Your task to perform on an android device: toggle priority inbox in the gmail app Image 0: 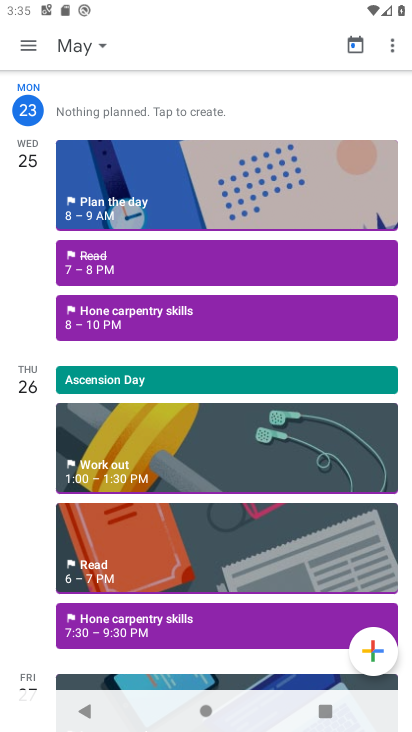
Step 0: drag from (216, 656) to (271, 219)
Your task to perform on an android device: toggle priority inbox in the gmail app Image 1: 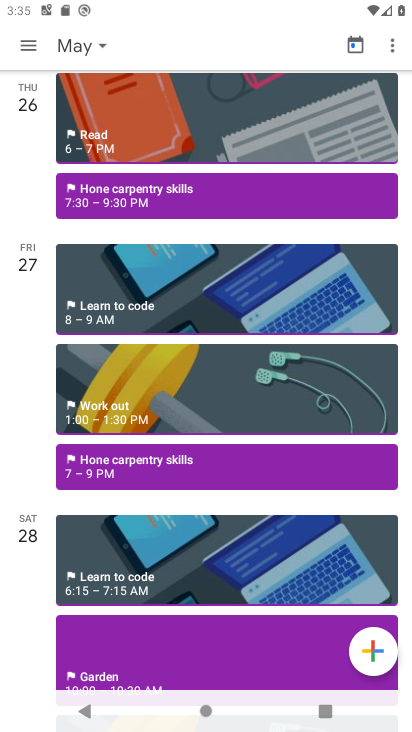
Step 1: drag from (224, 602) to (223, 151)
Your task to perform on an android device: toggle priority inbox in the gmail app Image 2: 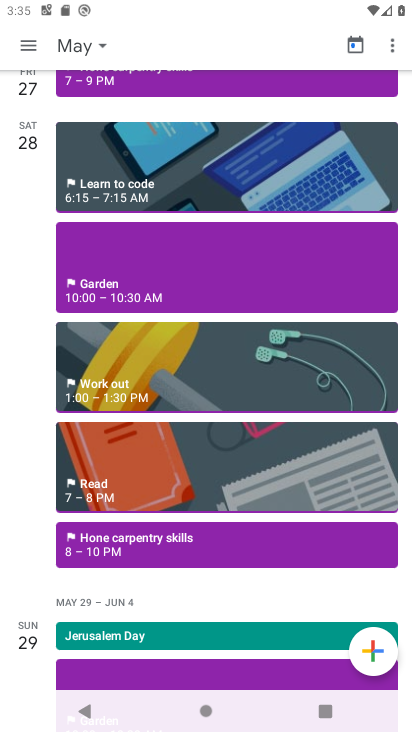
Step 2: press home button
Your task to perform on an android device: toggle priority inbox in the gmail app Image 3: 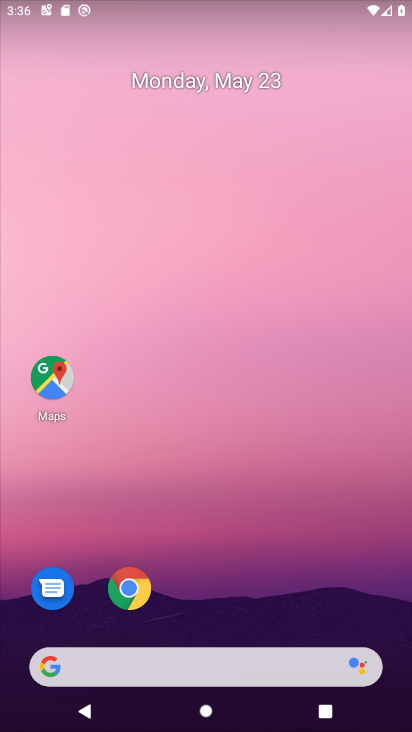
Step 3: drag from (193, 641) to (267, 203)
Your task to perform on an android device: toggle priority inbox in the gmail app Image 4: 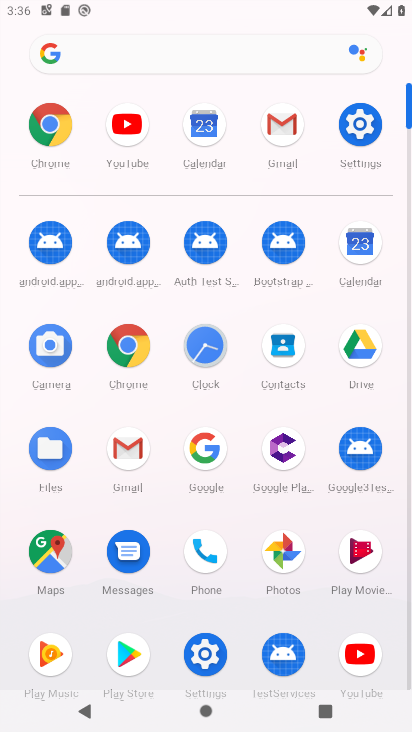
Step 4: click (120, 438)
Your task to perform on an android device: toggle priority inbox in the gmail app Image 5: 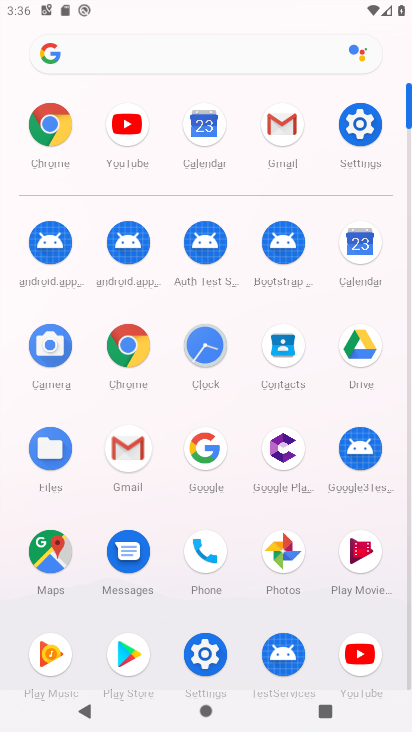
Step 5: click (120, 438)
Your task to perform on an android device: toggle priority inbox in the gmail app Image 6: 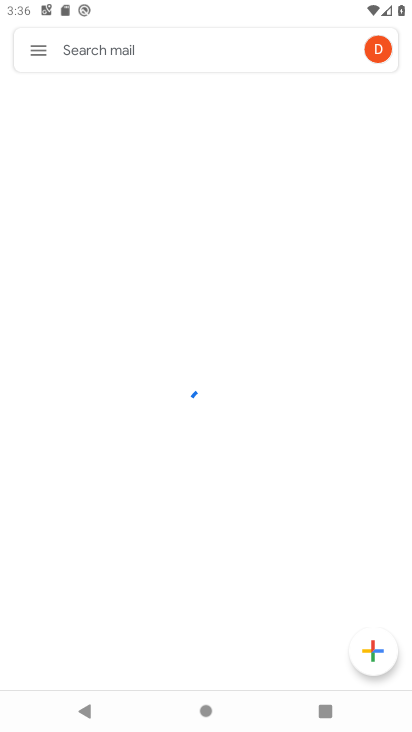
Step 6: click (39, 48)
Your task to perform on an android device: toggle priority inbox in the gmail app Image 7: 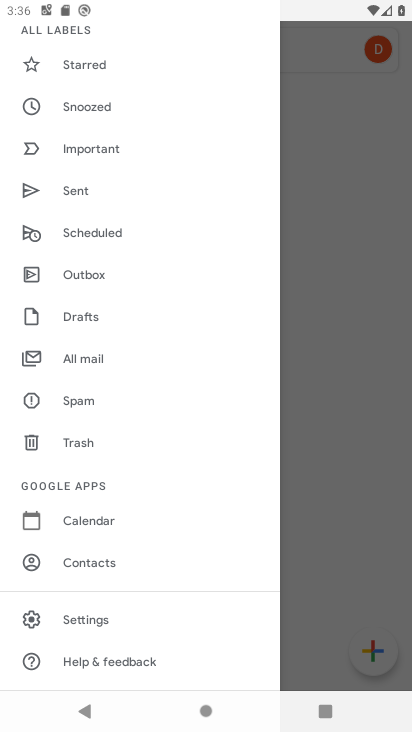
Step 7: click (106, 615)
Your task to perform on an android device: toggle priority inbox in the gmail app Image 8: 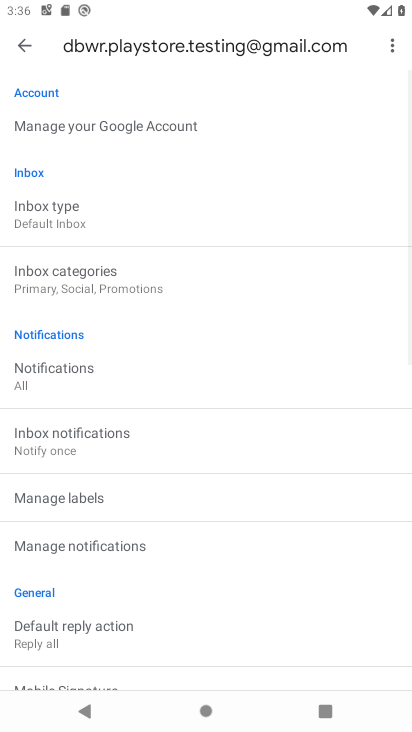
Step 8: click (88, 212)
Your task to perform on an android device: toggle priority inbox in the gmail app Image 9: 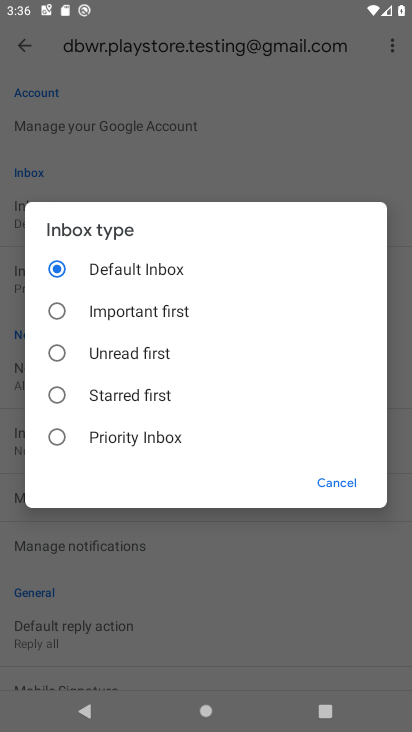
Step 9: click (88, 431)
Your task to perform on an android device: toggle priority inbox in the gmail app Image 10: 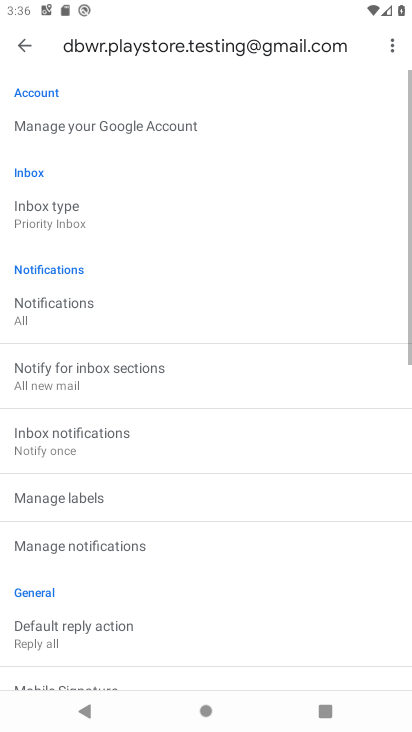
Step 10: task complete